Your task to perform on an android device: add a contact in the contacts app Image 0: 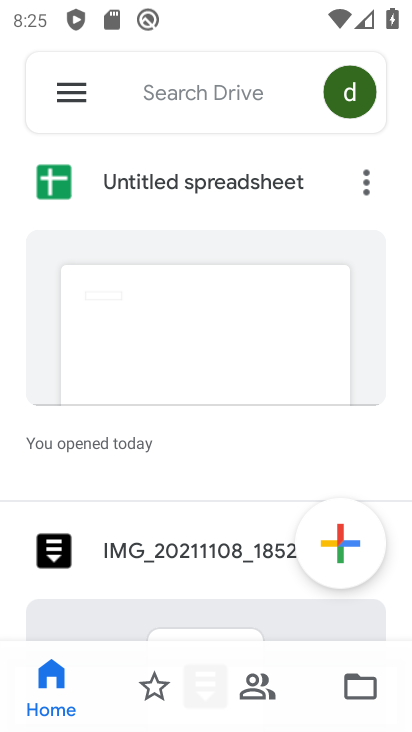
Step 0: click (410, 325)
Your task to perform on an android device: add a contact in the contacts app Image 1: 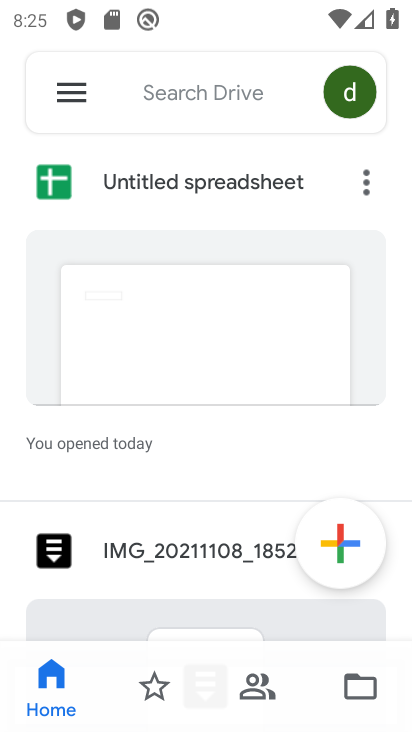
Step 1: press home button
Your task to perform on an android device: add a contact in the contacts app Image 2: 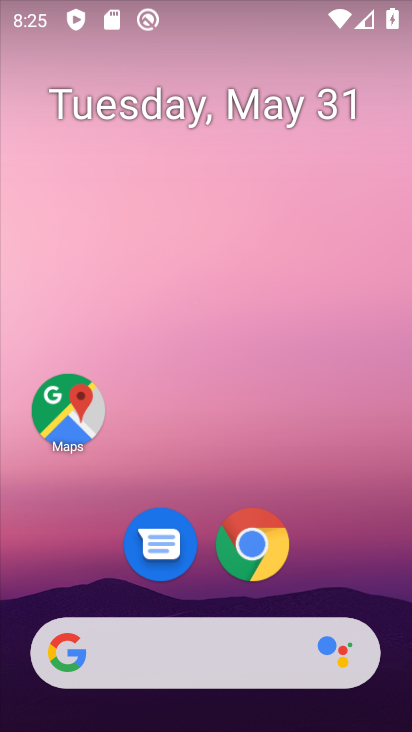
Step 2: drag from (241, 641) to (191, 175)
Your task to perform on an android device: add a contact in the contacts app Image 3: 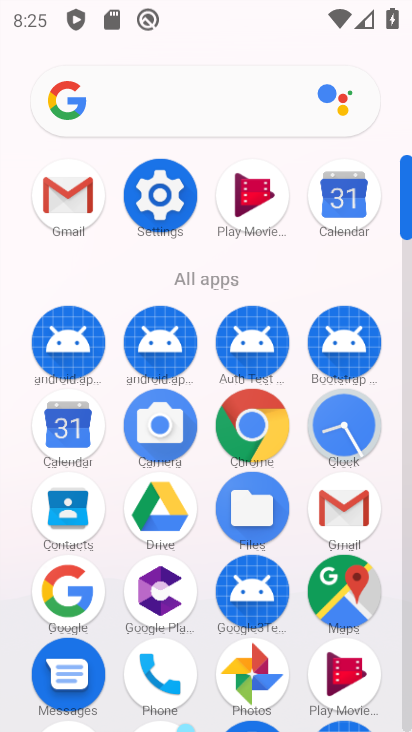
Step 3: click (82, 516)
Your task to perform on an android device: add a contact in the contacts app Image 4: 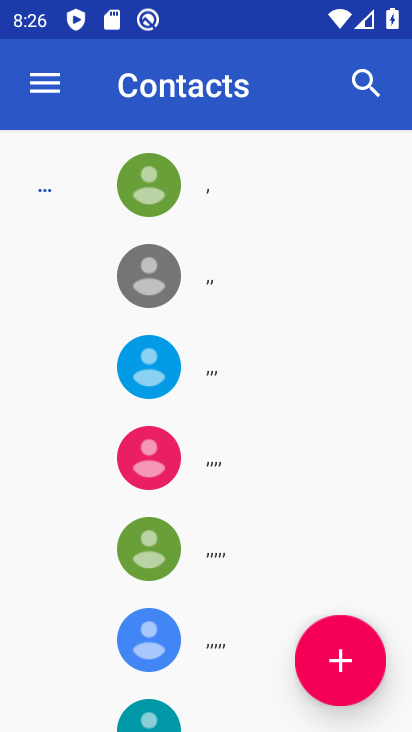
Step 4: click (356, 657)
Your task to perform on an android device: add a contact in the contacts app Image 5: 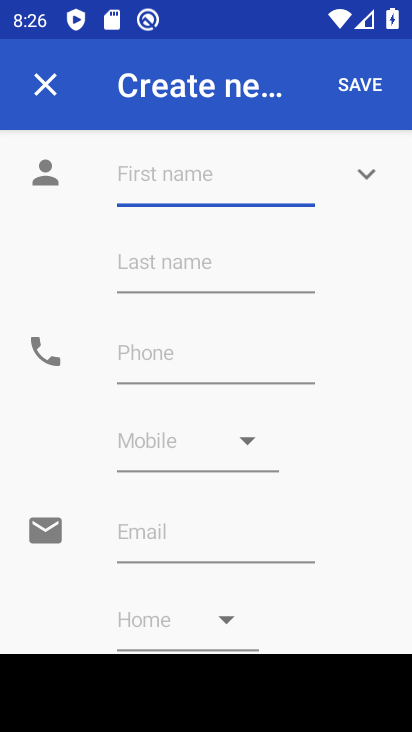
Step 5: type "mvcxvx"
Your task to perform on an android device: add a contact in the contacts app Image 6: 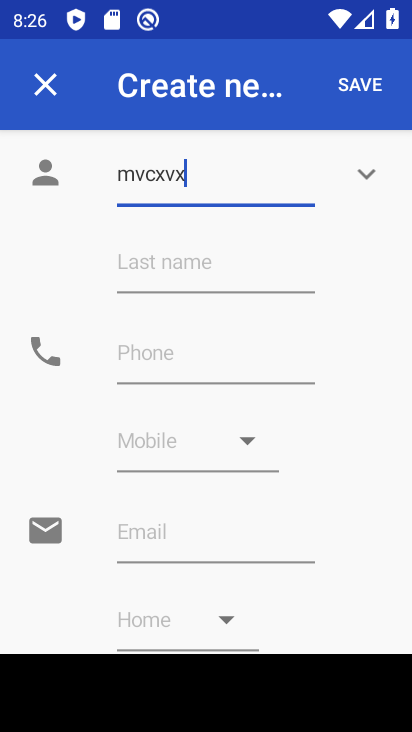
Step 6: click (256, 351)
Your task to perform on an android device: add a contact in the contacts app Image 7: 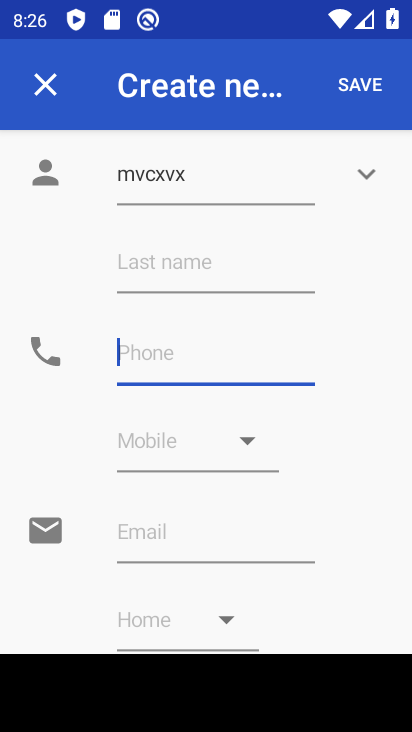
Step 7: type "3424242"
Your task to perform on an android device: add a contact in the contacts app Image 8: 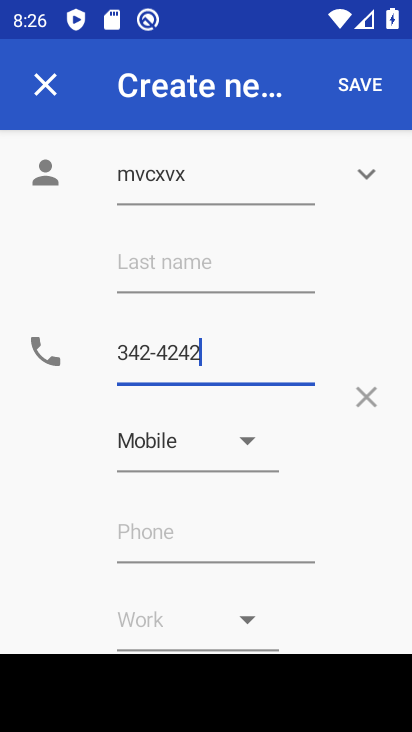
Step 8: click (376, 92)
Your task to perform on an android device: add a contact in the contacts app Image 9: 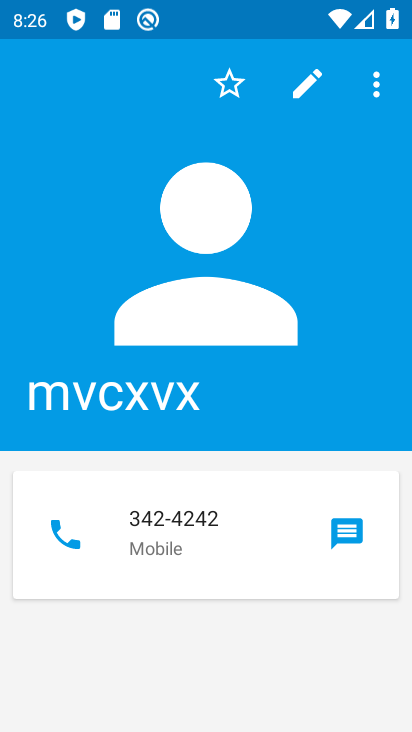
Step 9: press home button
Your task to perform on an android device: add a contact in the contacts app Image 10: 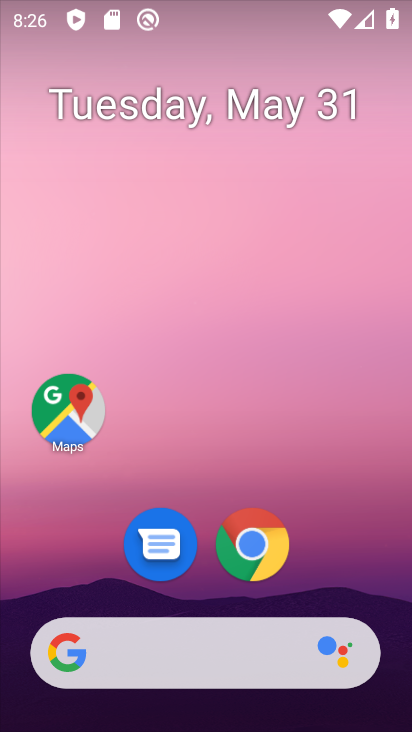
Step 10: drag from (223, 629) to (211, 140)
Your task to perform on an android device: add a contact in the contacts app Image 11: 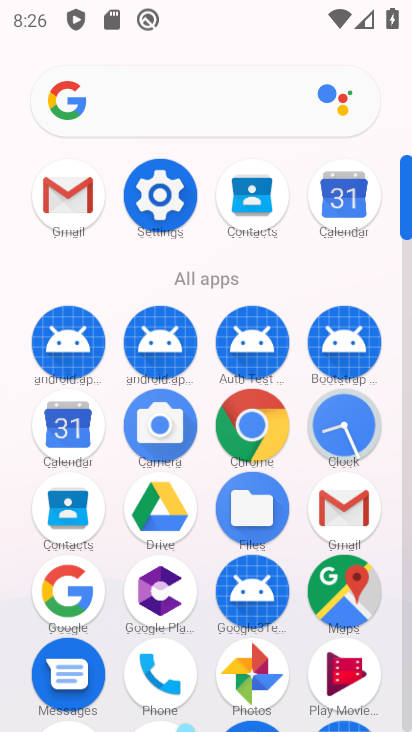
Step 11: click (77, 522)
Your task to perform on an android device: add a contact in the contacts app Image 12: 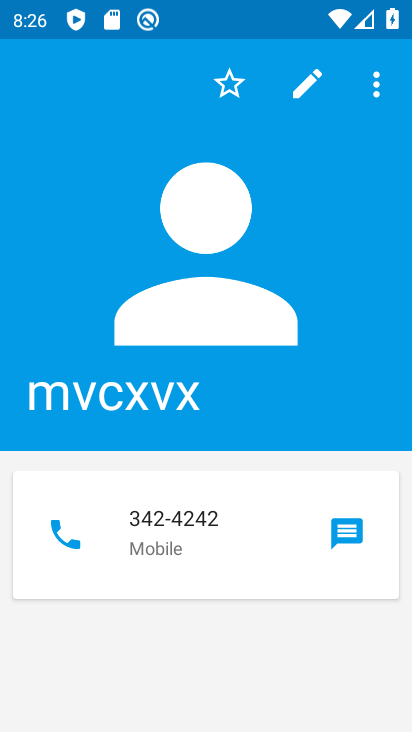
Step 12: drag from (232, 120) to (255, 638)
Your task to perform on an android device: add a contact in the contacts app Image 13: 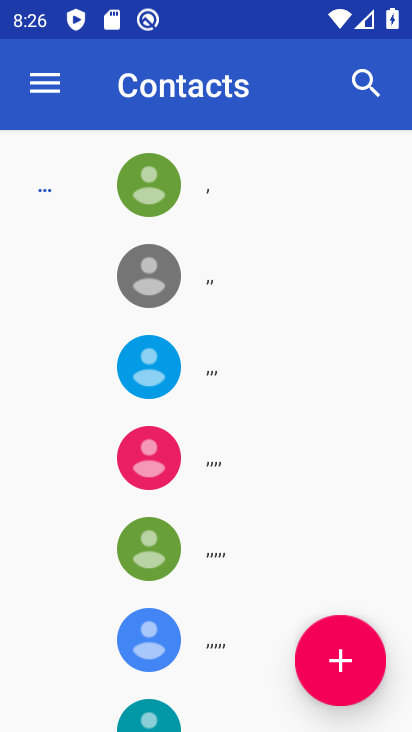
Step 13: click (336, 643)
Your task to perform on an android device: add a contact in the contacts app Image 14: 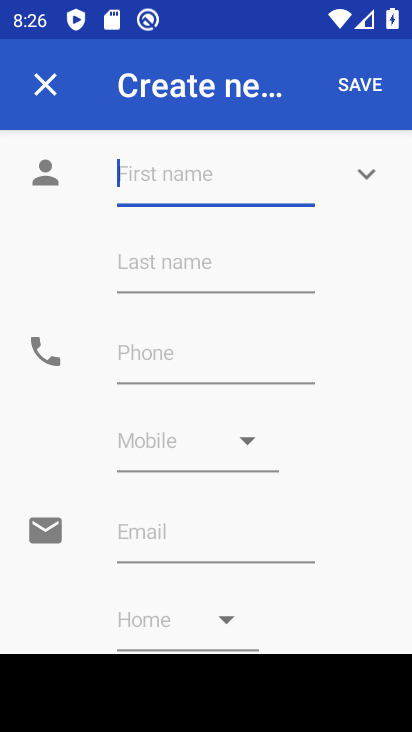
Step 14: type "vvbvb"
Your task to perform on an android device: add a contact in the contacts app Image 15: 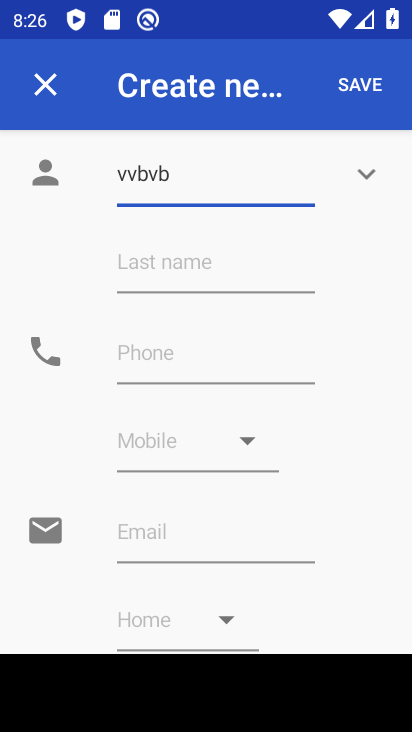
Step 15: click (172, 369)
Your task to perform on an android device: add a contact in the contacts app Image 16: 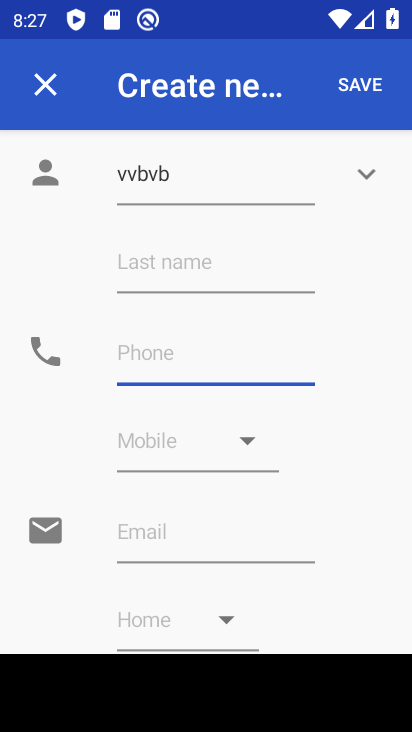
Step 16: type "876855"
Your task to perform on an android device: add a contact in the contacts app Image 17: 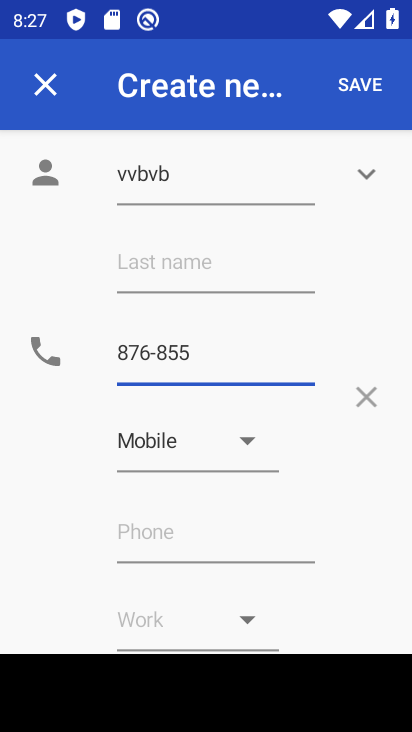
Step 17: click (358, 99)
Your task to perform on an android device: add a contact in the contacts app Image 18: 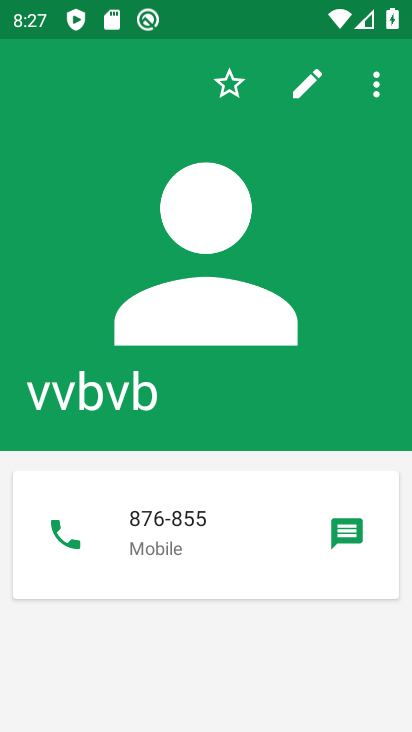
Step 18: task complete